Your task to perform on an android device: Is it going to rain today? Image 0: 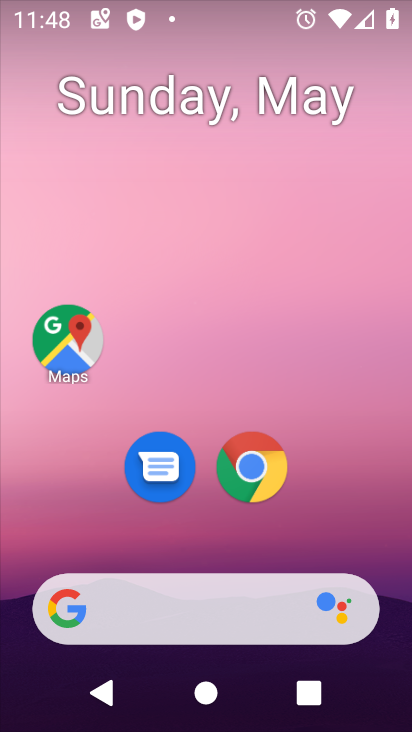
Step 0: click (126, 611)
Your task to perform on an android device: Is it going to rain today? Image 1: 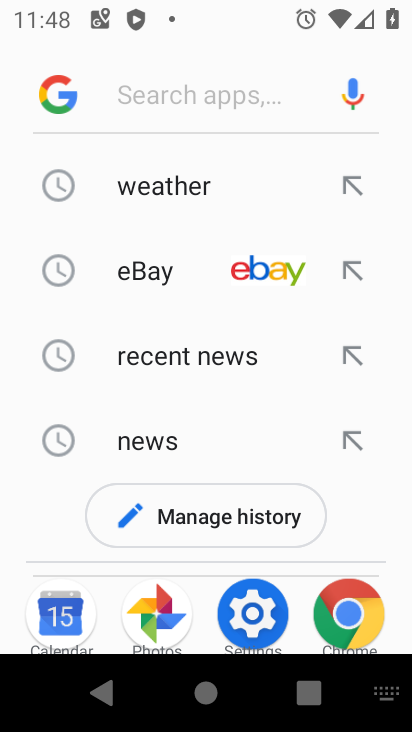
Step 1: click (145, 199)
Your task to perform on an android device: Is it going to rain today? Image 2: 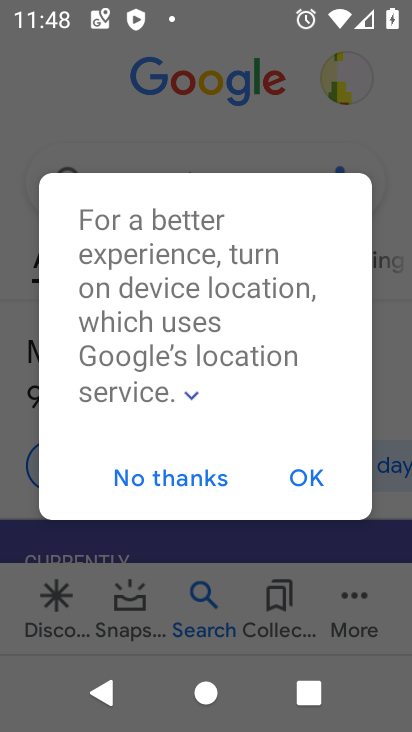
Step 2: click (152, 476)
Your task to perform on an android device: Is it going to rain today? Image 3: 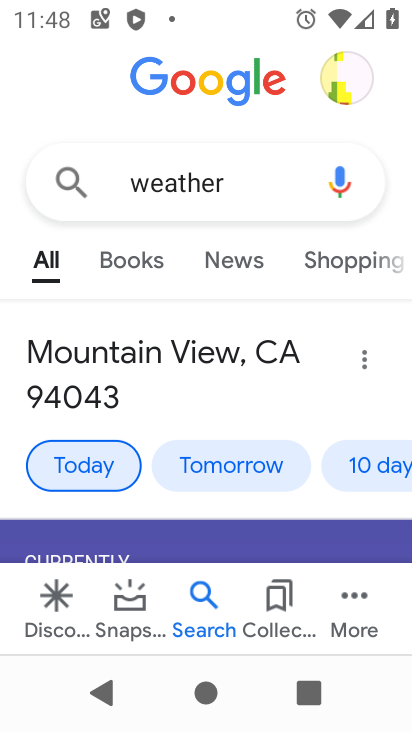
Step 3: task complete